Your task to perform on an android device: Open Yahoo.com Image 0: 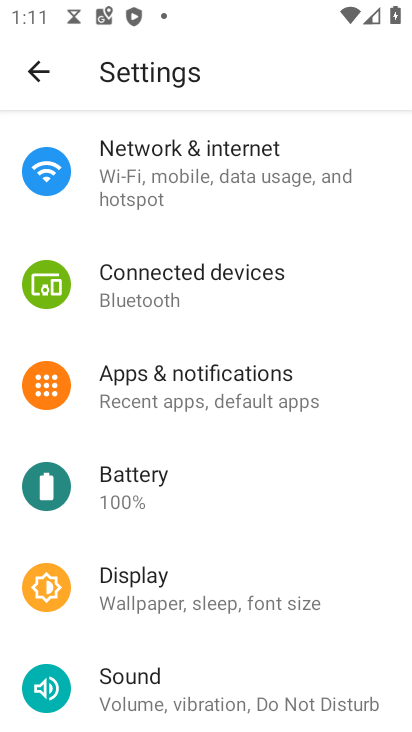
Step 0: press home button
Your task to perform on an android device: Open Yahoo.com Image 1: 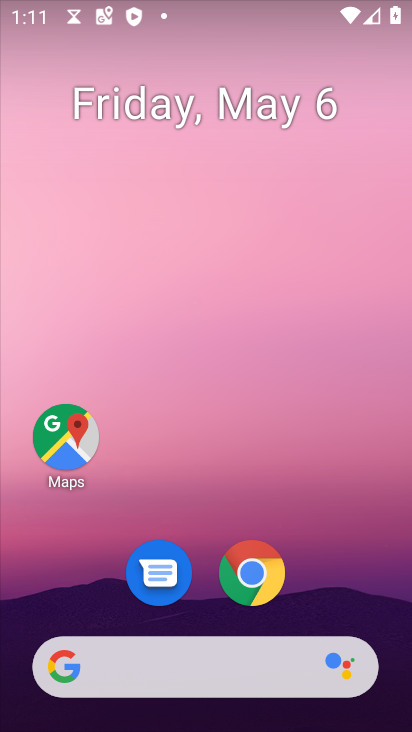
Step 1: drag from (312, 494) to (308, 242)
Your task to perform on an android device: Open Yahoo.com Image 2: 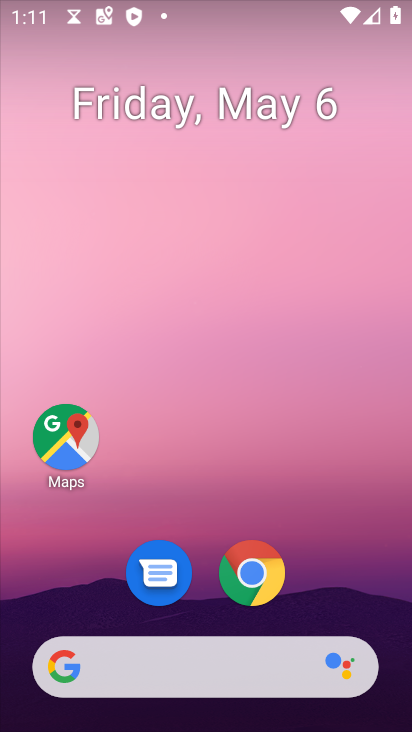
Step 2: drag from (327, 514) to (346, 243)
Your task to perform on an android device: Open Yahoo.com Image 3: 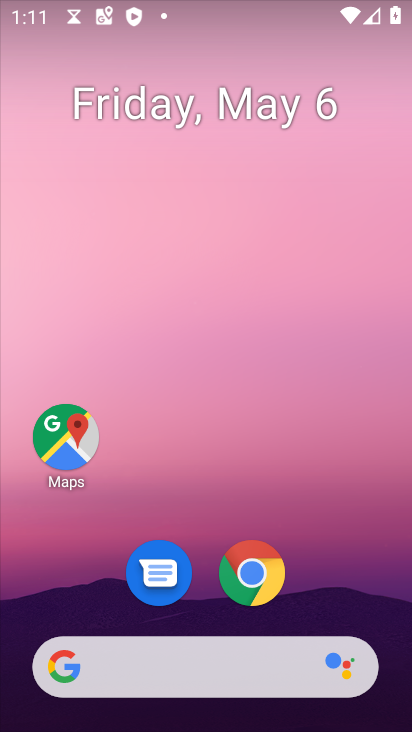
Step 3: drag from (289, 603) to (287, 56)
Your task to perform on an android device: Open Yahoo.com Image 4: 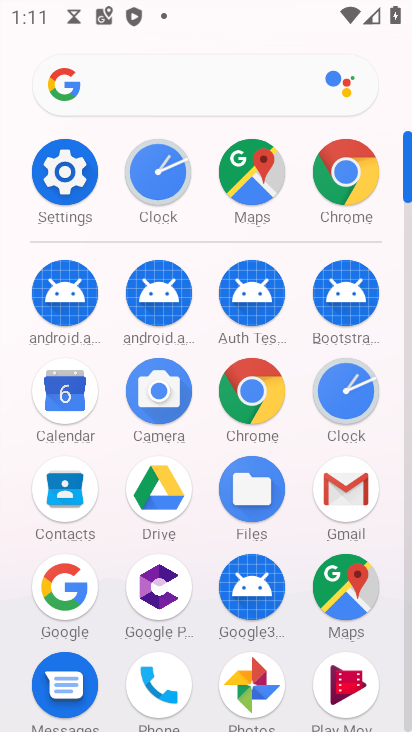
Step 4: click (235, 389)
Your task to perform on an android device: Open Yahoo.com Image 5: 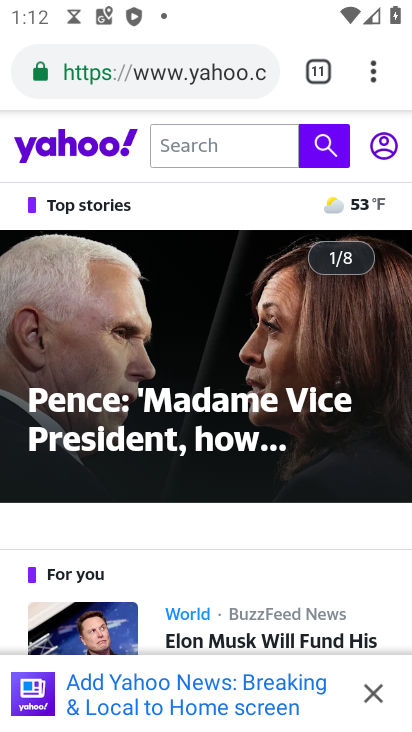
Step 5: task complete